Your task to perform on an android device: open chrome and create a bookmark for the current page Image 0: 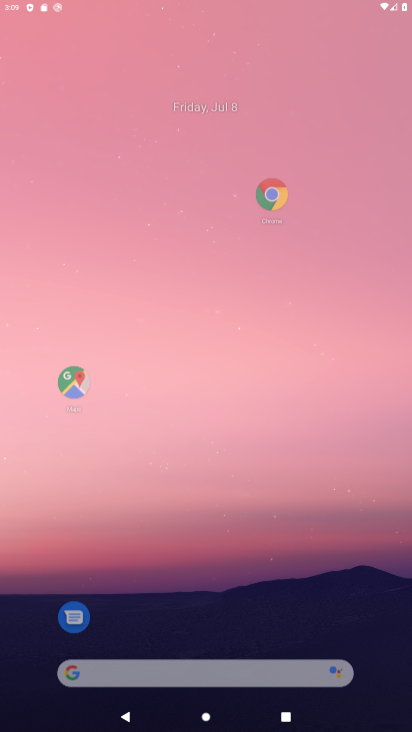
Step 0: click (216, 22)
Your task to perform on an android device: open chrome and create a bookmark for the current page Image 1: 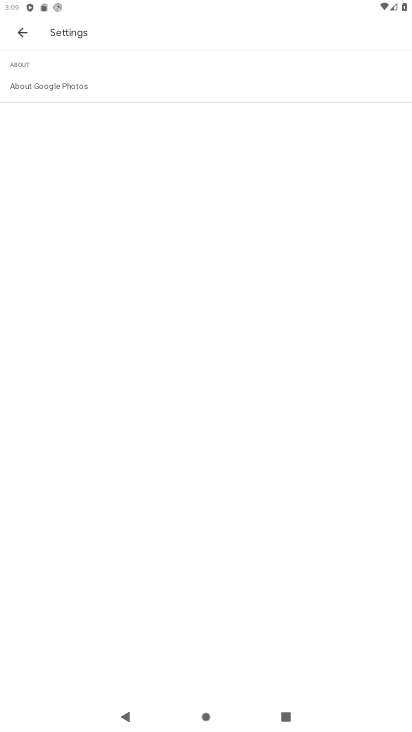
Step 1: press home button
Your task to perform on an android device: open chrome and create a bookmark for the current page Image 2: 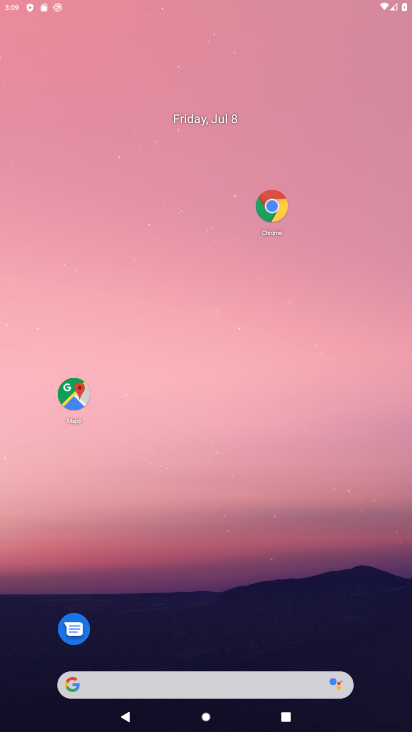
Step 2: drag from (212, 657) to (221, 3)
Your task to perform on an android device: open chrome and create a bookmark for the current page Image 3: 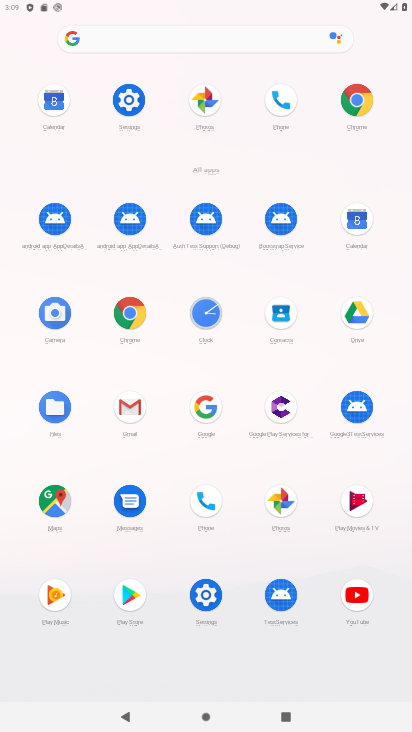
Step 3: click (127, 310)
Your task to perform on an android device: open chrome and create a bookmark for the current page Image 4: 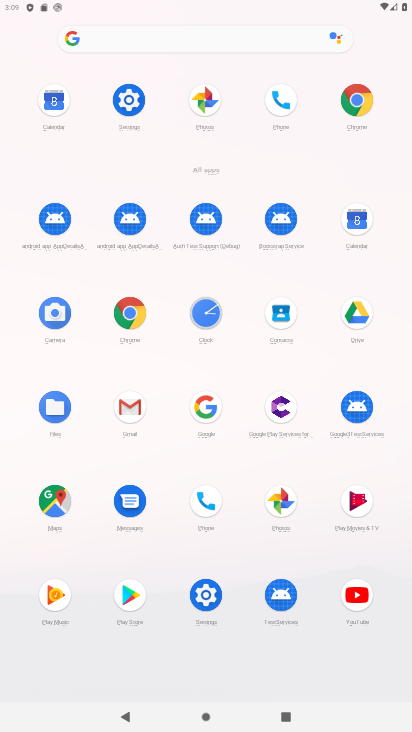
Step 4: click (127, 310)
Your task to perform on an android device: open chrome and create a bookmark for the current page Image 5: 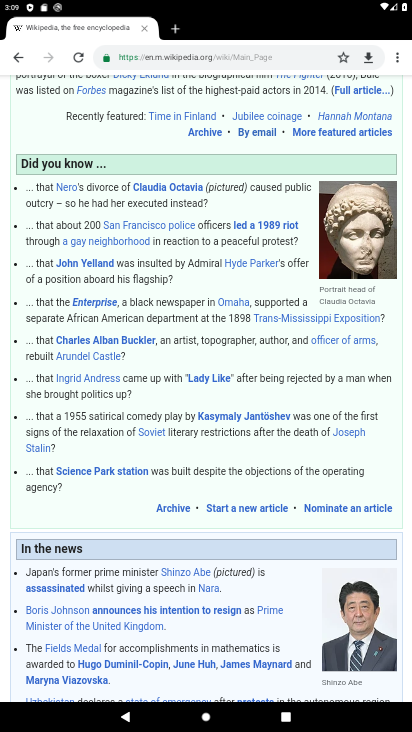
Step 5: drag from (175, 145) to (269, 702)
Your task to perform on an android device: open chrome and create a bookmark for the current page Image 6: 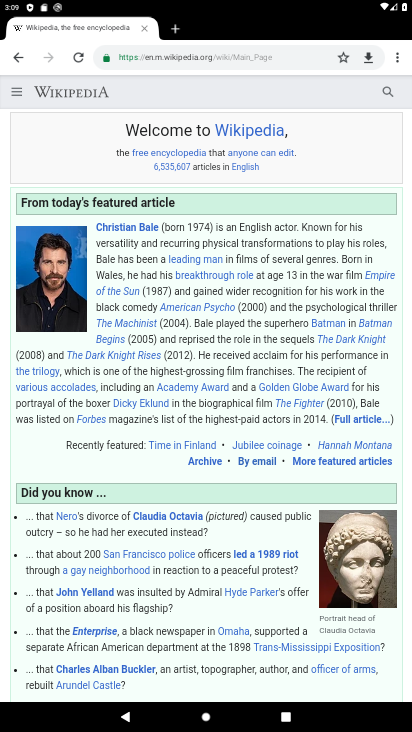
Step 6: click (400, 52)
Your task to perform on an android device: open chrome and create a bookmark for the current page Image 7: 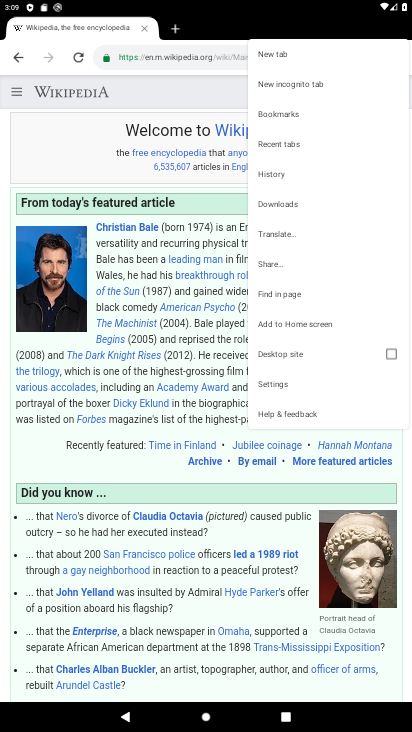
Step 7: drag from (102, 178) to (247, 540)
Your task to perform on an android device: open chrome and create a bookmark for the current page Image 8: 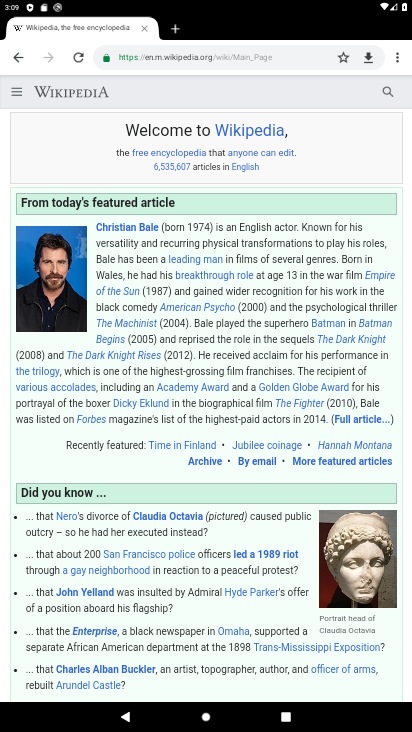
Step 8: drag from (311, 115) to (348, 582)
Your task to perform on an android device: open chrome and create a bookmark for the current page Image 9: 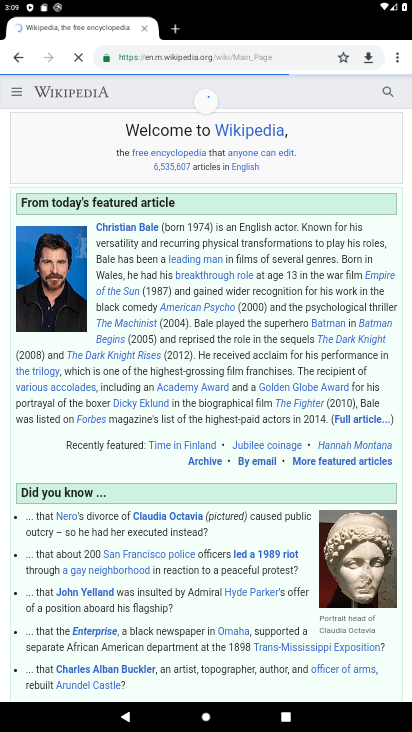
Step 9: click (402, 55)
Your task to perform on an android device: open chrome and create a bookmark for the current page Image 10: 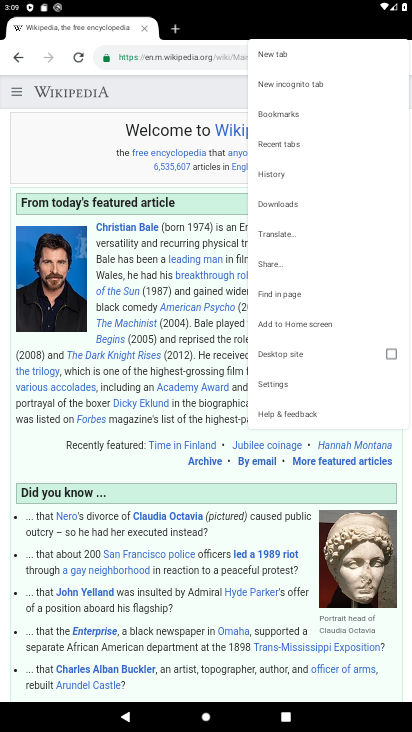
Step 10: click (281, 118)
Your task to perform on an android device: open chrome and create a bookmark for the current page Image 11: 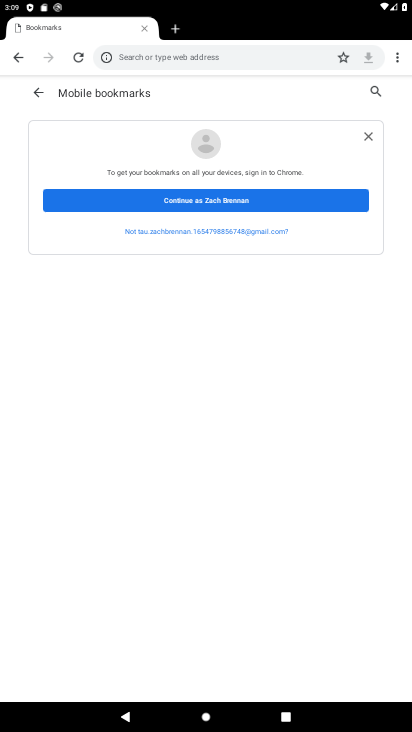
Step 11: drag from (180, 510) to (185, 260)
Your task to perform on an android device: open chrome and create a bookmark for the current page Image 12: 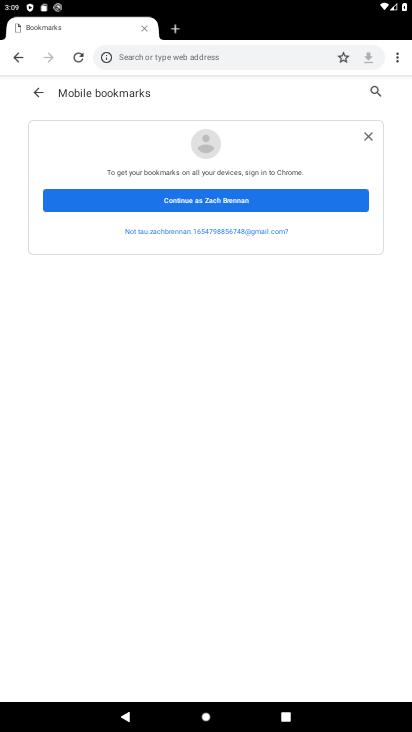
Step 12: drag from (230, 528) to (223, 98)
Your task to perform on an android device: open chrome and create a bookmark for the current page Image 13: 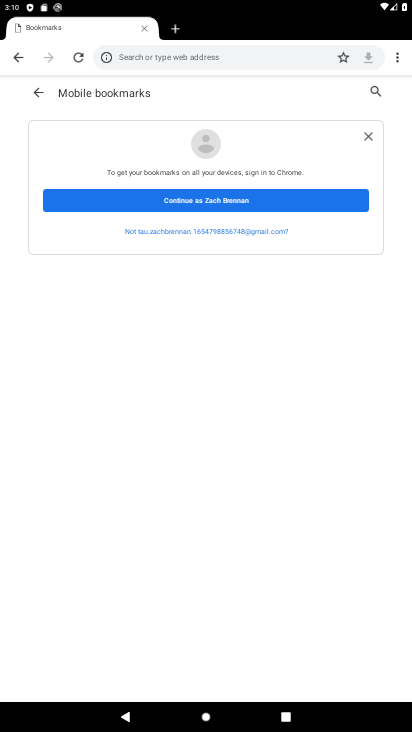
Step 13: click (344, 58)
Your task to perform on an android device: open chrome and create a bookmark for the current page Image 14: 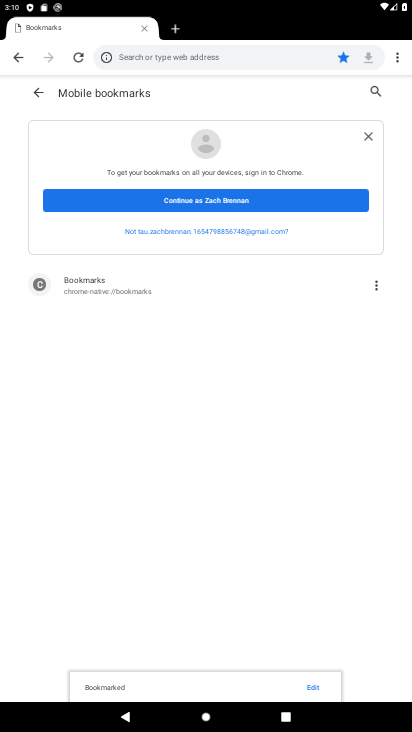
Step 14: task complete